Your task to perform on an android device: open app "Google Duo" (install if not already installed) Image 0: 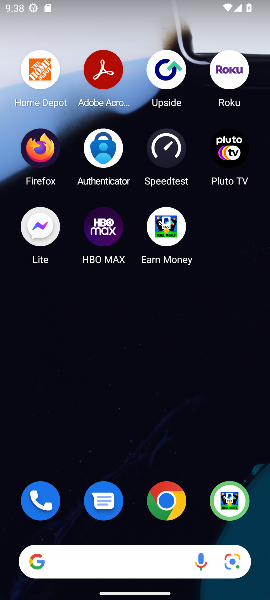
Step 0: drag from (145, 523) to (149, 146)
Your task to perform on an android device: open app "Google Duo" (install if not already installed) Image 1: 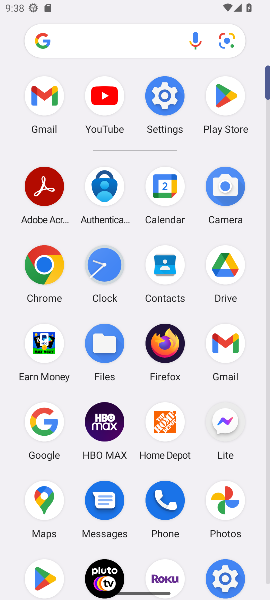
Step 1: click (224, 90)
Your task to perform on an android device: open app "Google Duo" (install if not already installed) Image 2: 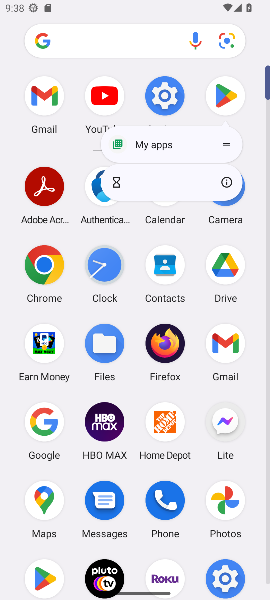
Step 2: click (225, 179)
Your task to perform on an android device: open app "Google Duo" (install if not already installed) Image 3: 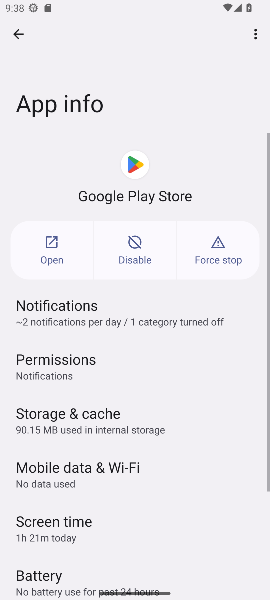
Step 3: click (61, 251)
Your task to perform on an android device: open app "Google Duo" (install if not already installed) Image 4: 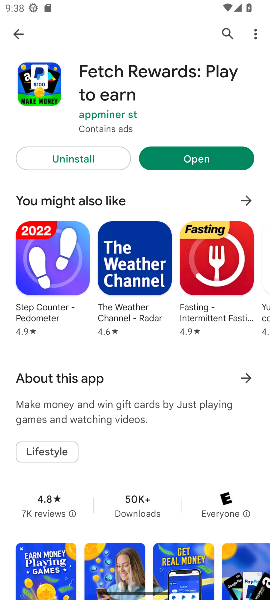
Step 4: drag from (114, 504) to (161, 118)
Your task to perform on an android device: open app "Google Duo" (install if not already installed) Image 5: 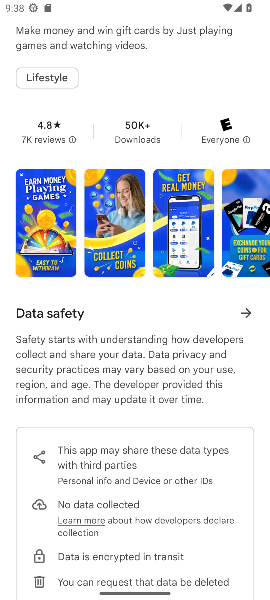
Step 5: drag from (151, 81) to (177, 581)
Your task to perform on an android device: open app "Google Duo" (install if not already installed) Image 6: 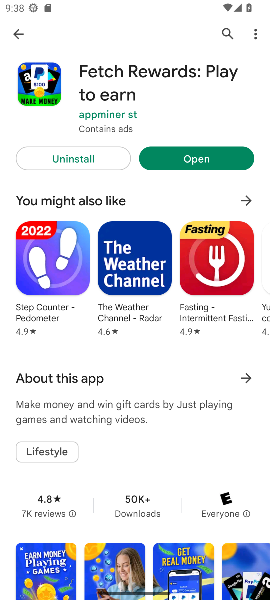
Step 6: drag from (147, 116) to (188, 533)
Your task to perform on an android device: open app "Google Duo" (install if not already installed) Image 7: 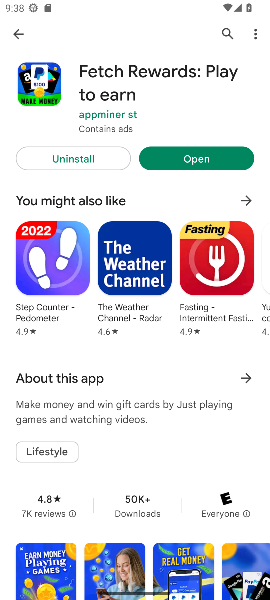
Step 7: drag from (133, 119) to (116, 443)
Your task to perform on an android device: open app "Google Duo" (install if not already installed) Image 8: 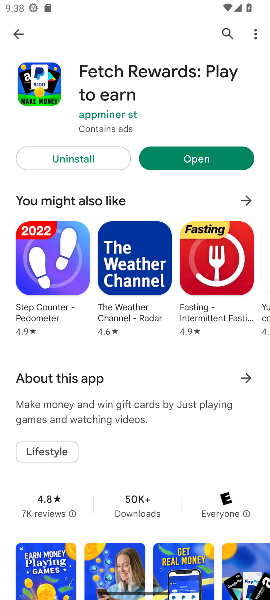
Step 8: click (224, 29)
Your task to perform on an android device: open app "Google Duo" (install if not already installed) Image 9: 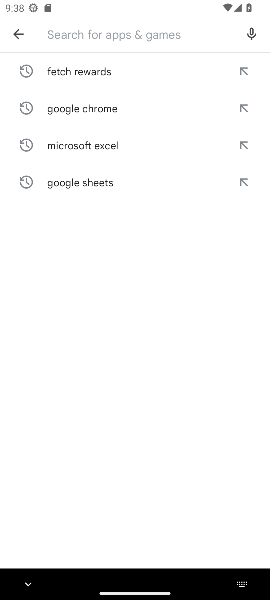
Step 9: type "Google Duo"
Your task to perform on an android device: open app "Google Duo" (install if not already installed) Image 10: 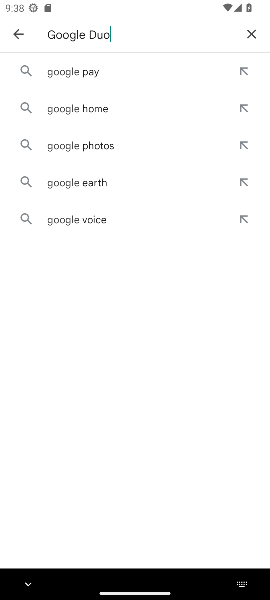
Step 10: type ""
Your task to perform on an android device: open app "Google Duo" (install if not already installed) Image 11: 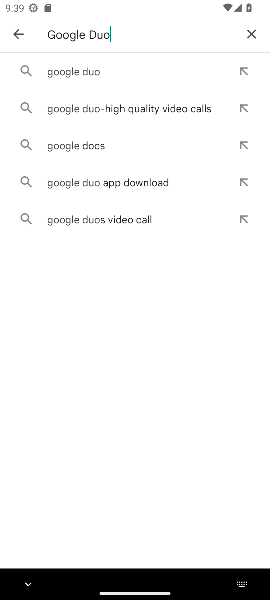
Step 11: click (98, 75)
Your task to perform on an android device: open app "Google Duo" (install if not already installed) Image 12: 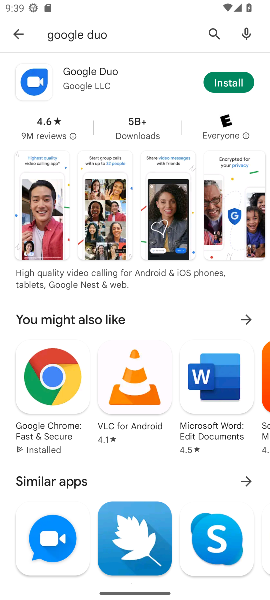
Step 12: click (82, 80)
Your task to perform on an android device: open app "Google Duo" (install if not already installed) Image 13: 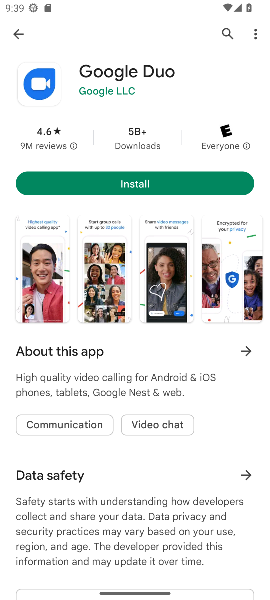
Step 13: click (122, 191)
Your task to perform on an android device: open app "Google Duo" (install if not already installed) Image 14: 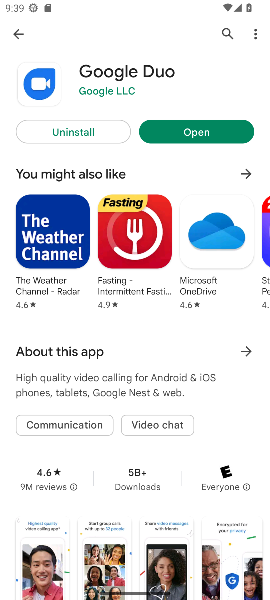
Step 14: click (187, 129)
Your task to perform on an android device: open app "Google Duo" (install if not already installed) Image 15: 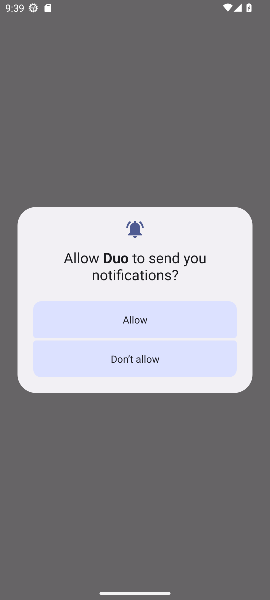
Step 15: click (146, 312)
Your task to perform on an android device: open app "Google Duo" (install if not already installed) Image 16: 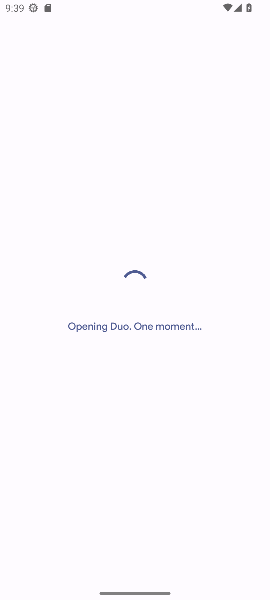
Step 16: task complete